Your task to perform on an android device: allow cookies in the chrome app Image 0: 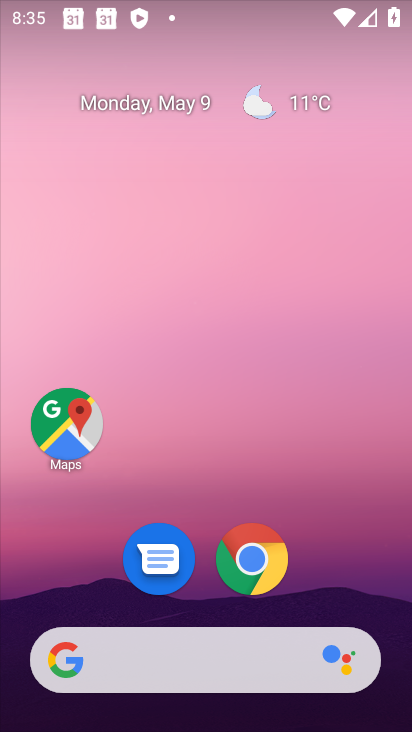
Step 0: drag from (342, 621) to (106, 59)
Your task to perform on an android device: allow cookies in the chrome app Image 1: 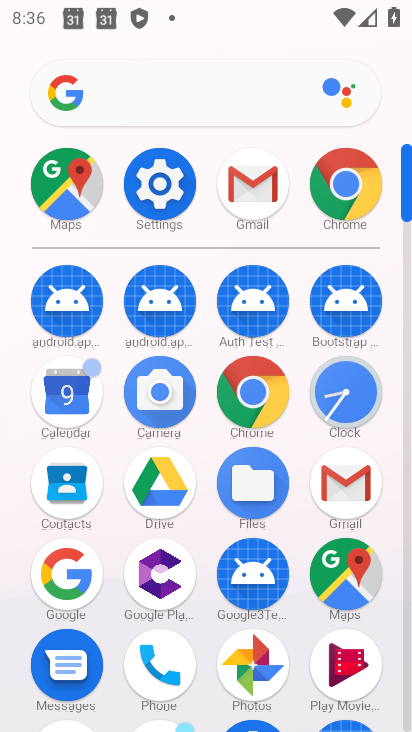
Step 1: click (343, 175)
Your task to perform on an android device: allow cookies in the chrome app Image 2: 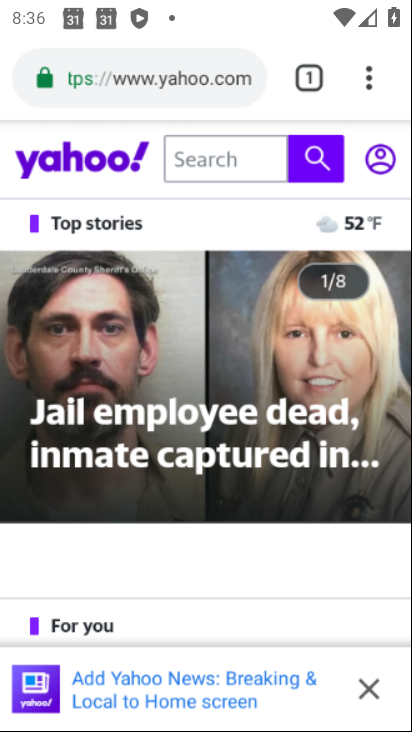
Step 2: click (348, 186)
Your task to perform on an android device: allow cookies in the chrome app Image 3: 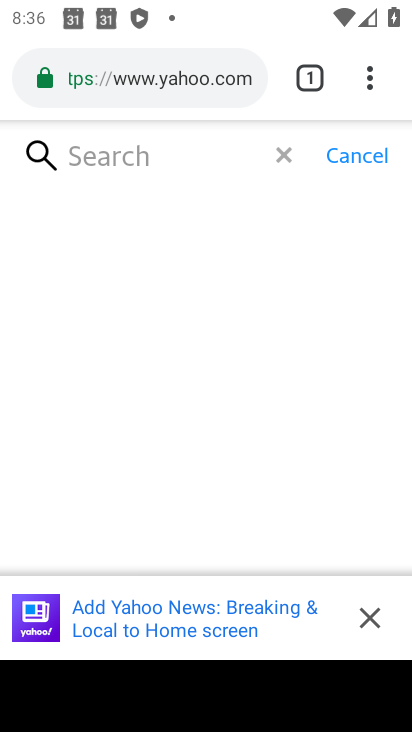
Step 3: drag from (367, 81) to (182, 581)
Your task to perform on an android device: allow cookies in the chrome app Image 4: 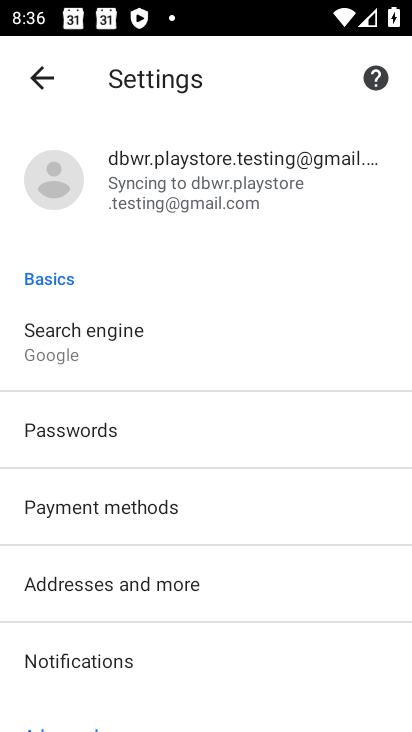
Step 4: drag from (156, 608) to (67, 242)
Your task to perform on an android device: allow cookies in the chrome app Image 5: 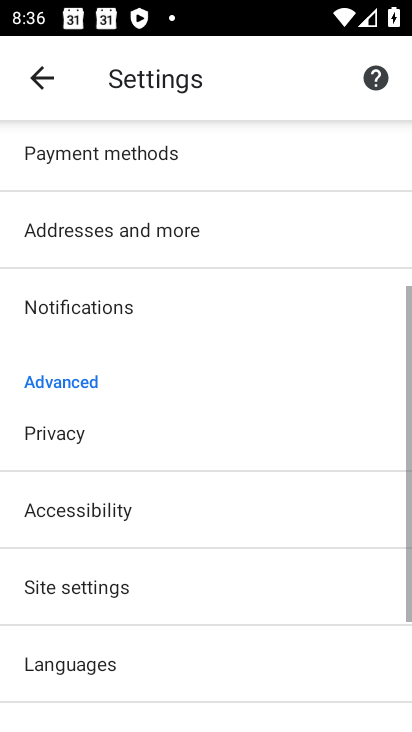
Step 5: drag from (167, 533) to (195, 73)
Your task to perform on an android device: allow cookies in the chrome app Image 6: 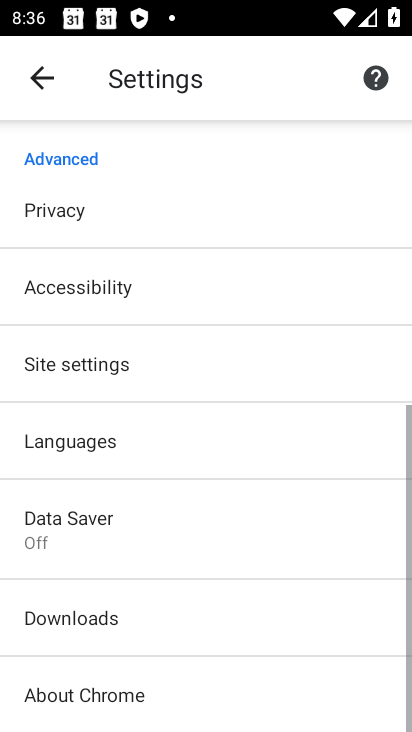
Step 6: drag from (276, 509) to (313, 185)
Your task to perform on an android device: allow cookies in the chrome app Image 7: 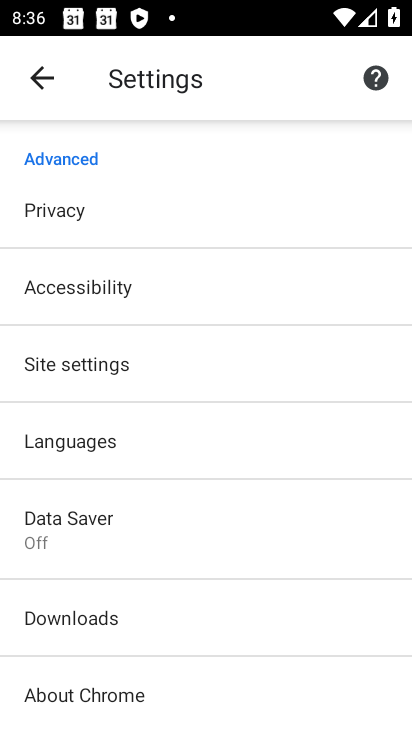
Step 7: click (68, 365)
Your task to perform on an android device: allow cookies in the chrome app Image 8: 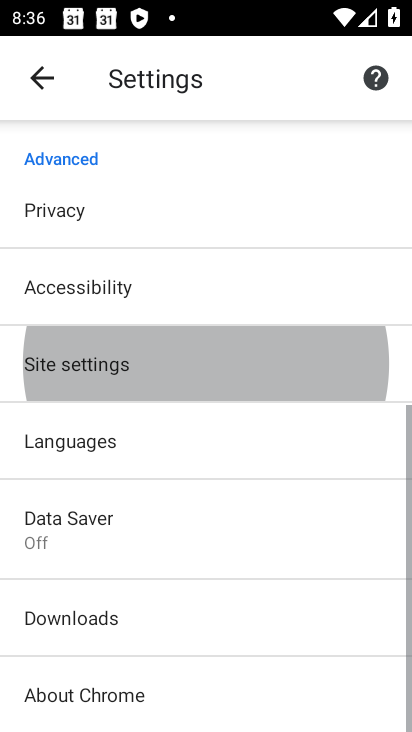
Step 8: click (68, 365)
Your task to perform on an android device: allow cookies in the chrome app Image 9: 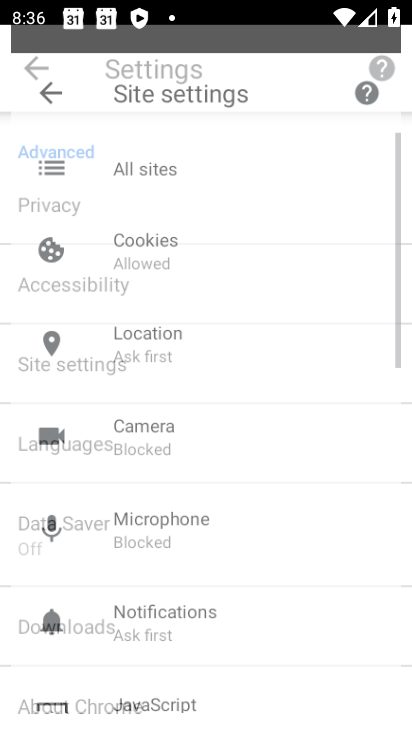
Step 9: click (68, 365)
Your task to perform on an android device: allow cookies in the chrome app Image 10: 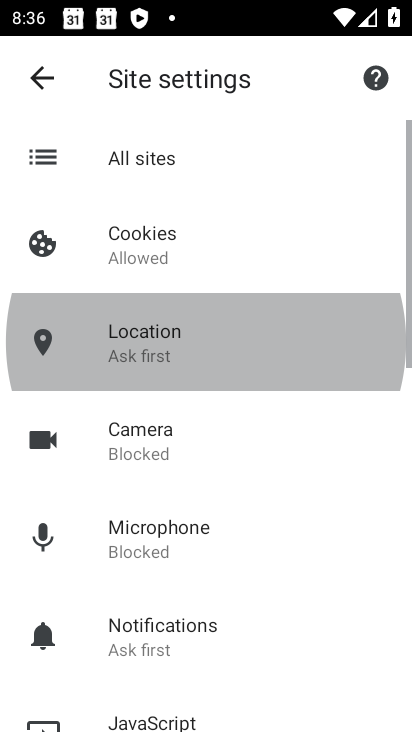
Step 10: click (68, 365)
Your task to perform on an android device: allow cookies in the chrome app Image 11: 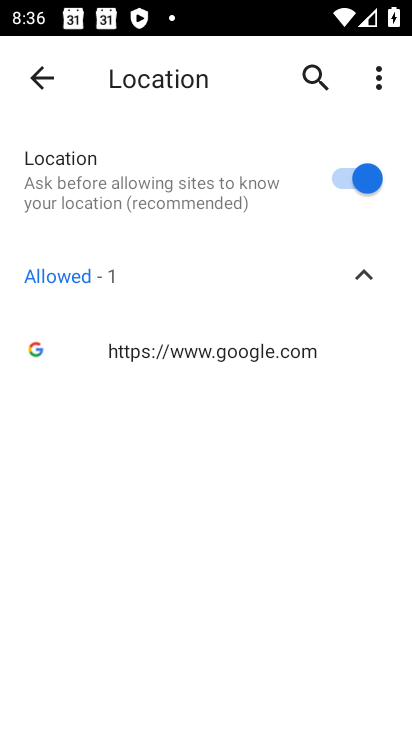
Step 11: click (41, 82)
Your task to perform on an android device: allow cookies in the chrome app Image 12: 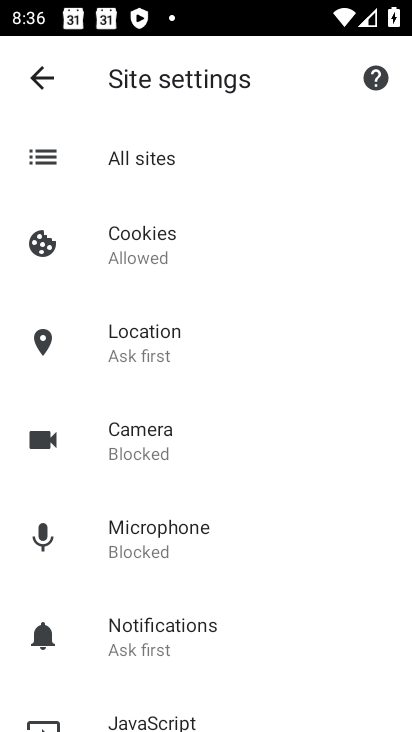
Step 12: click (149, 155)
Your task to perform on an android device: allow cookies in the chrome app Image 13: 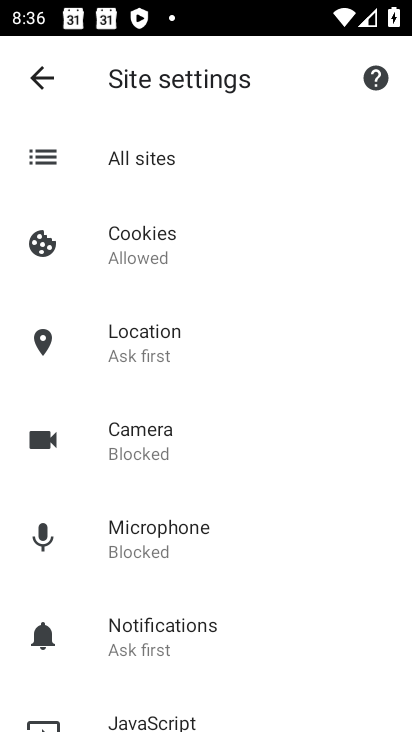
Step 13: click (152, 153)
Your task to perform on an android device: allow cookies in the chrome app Image 14: 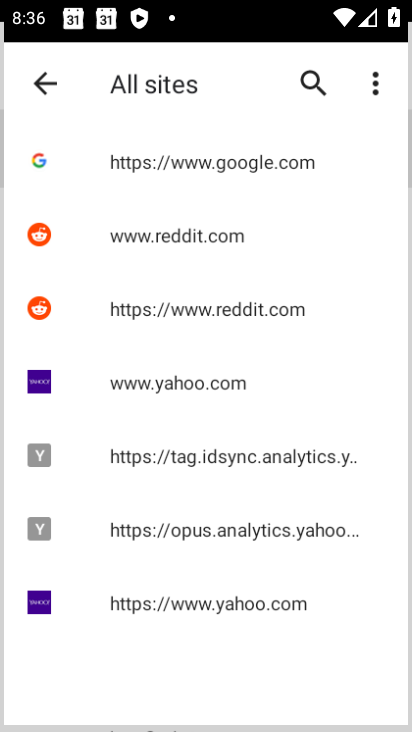
Step 14: click (151, 164)
Your task to perform on an android device: allow cookies in the chrome app Image 15: 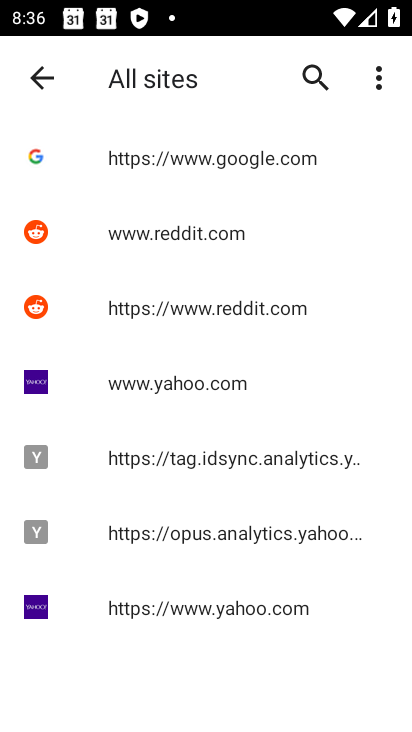
Step 15: click (151, 164)
Your task to perform on an android device: allow cookies in the chrome app Image 16: 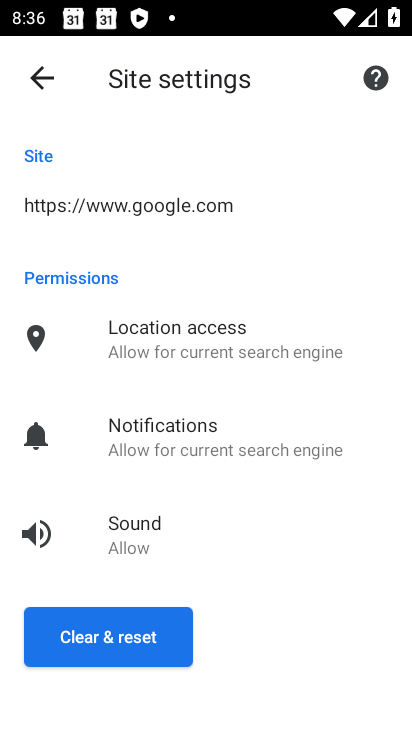
Step 16: click (117, 618)
Your task to perform on an android device: allow cookies in the chrome app Image 17: 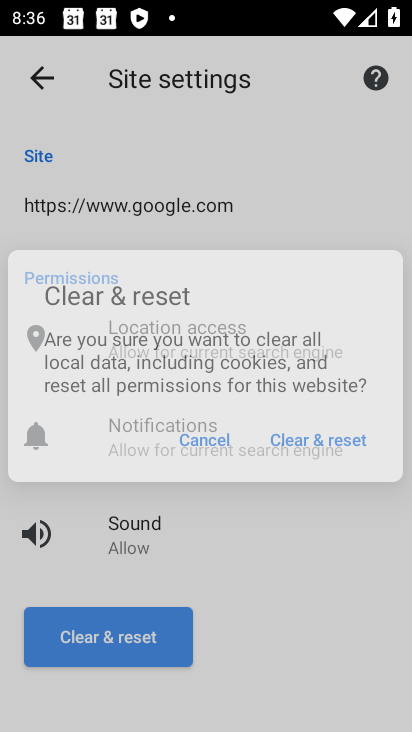
Step 17: click (117, 618)
Your task to perform on an android device: allow cookies in the chrome app Image 18: 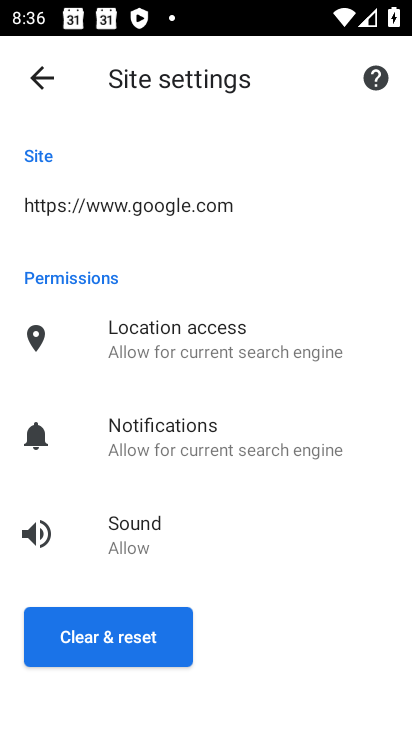
Step 18: task complete